Your task to perform on an android device: Open Google Chrome Image 0: 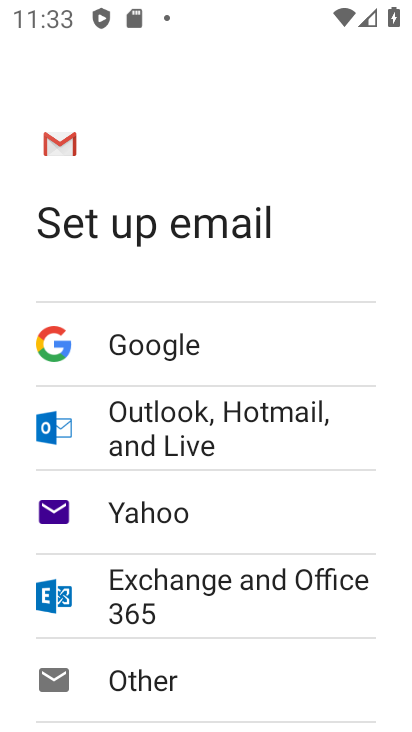
Step 0: press home button
Your task to perform on an android device: Open Google Chrome Image 1: 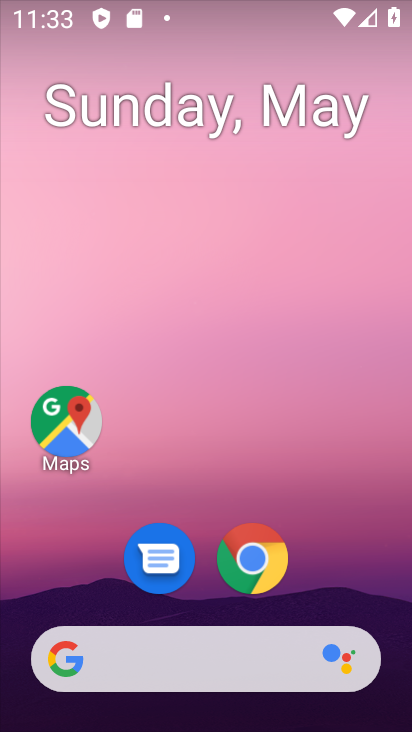
Step 1: drag from (347, 564) to (332, 170)
Your task to perform on an android device: Open Google Chrome Image 2: 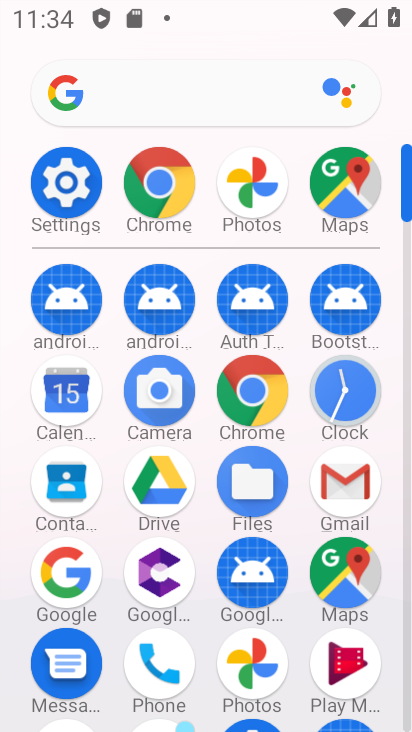
Step 2: click (264, 400)
Your task to perform on an android device: Open Google Chrome Image 3: 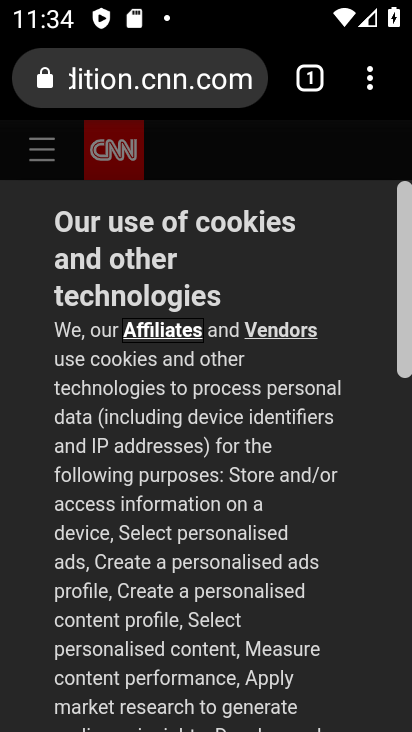
Step 3: task complete